Your task to perform on an android device: Open accessibility settings Image 0: 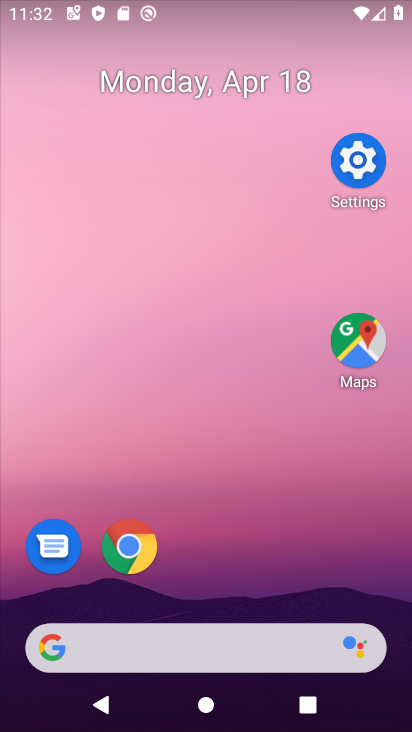
Step 0: drag from (200, 412) to (141, 156)
Your task to perform on an android device: Open accessibility settings Image 1: 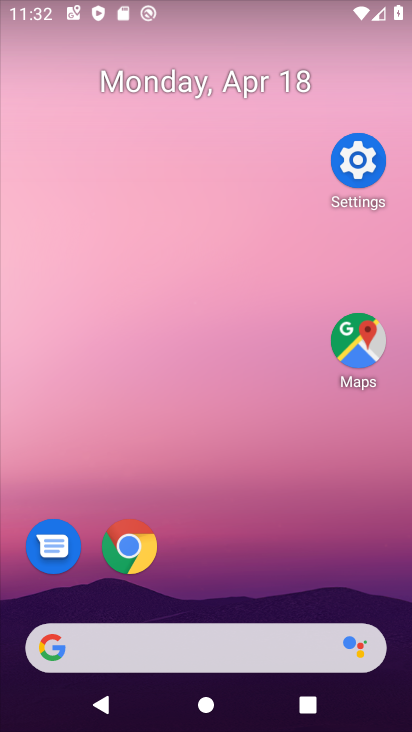
Step 1: drag from (249, 560) to (179, 236)
Your task to perform on an android device: Open accessibility settings Image 2: 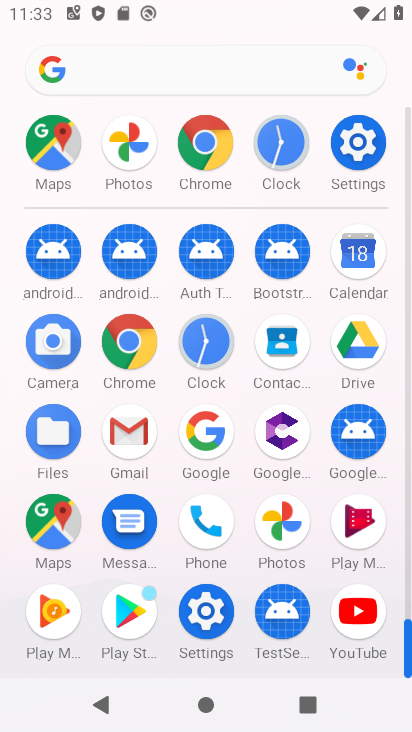
Step 2: click (356, 142)
Your task to perform on an android device: Open accessibility settings Image 3: 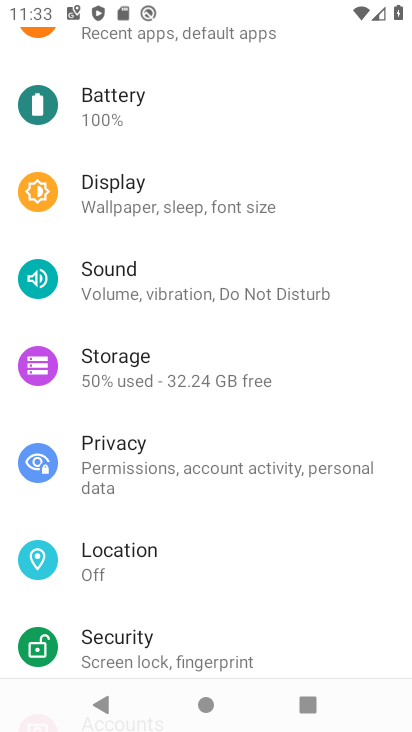
Step 3: drag from (191, 613) to (105, 183)
Your task to perform on an android device: Open accessibility settings Image 4: 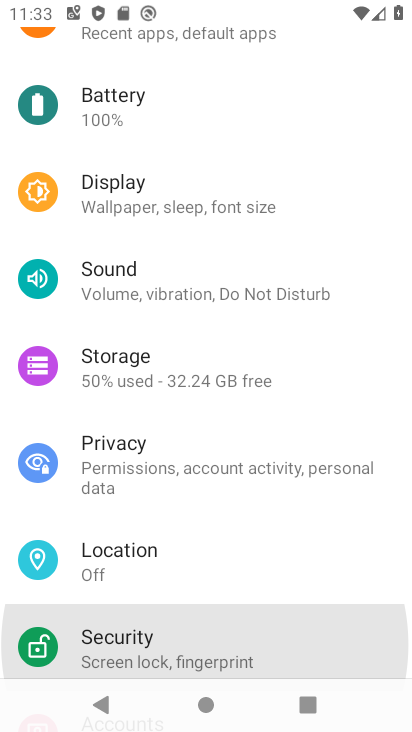
Step 4: drag from (168, 421) to (122, 218)
Your task to perform on an android device: Open accessibility settings Image 5: 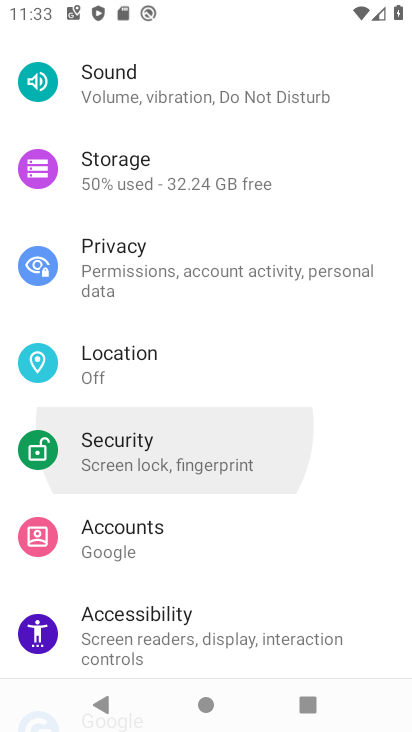
Step 5: drag from (163, 221) to (149, 122)
Your task to perform on an android device: Open accessibility settings Image 6: 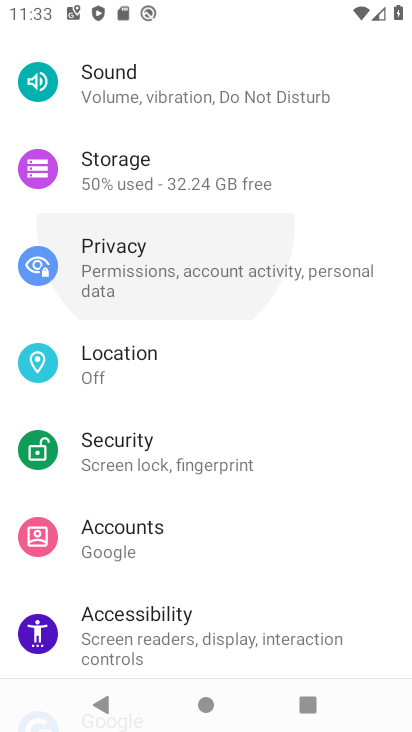
Step 6: drag from (232, 442) to (185, 51)
Your task to perform on an android device: Open accessibility settings Image 7: 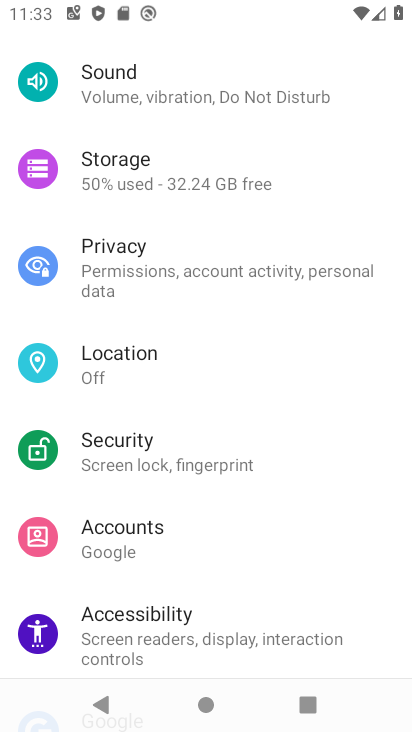
Step 7: click (128, 642)
Your task to perform on an android device: Open accessibility settings Image 8: 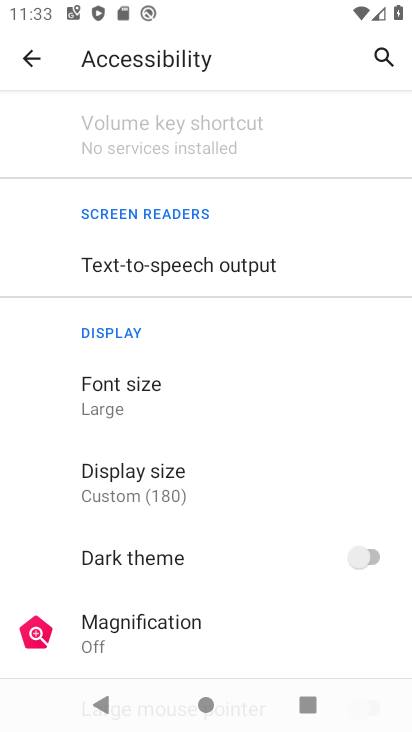
Step 8: task complete